Your task to perform on an android device: create a new album in the google photos Image 0: 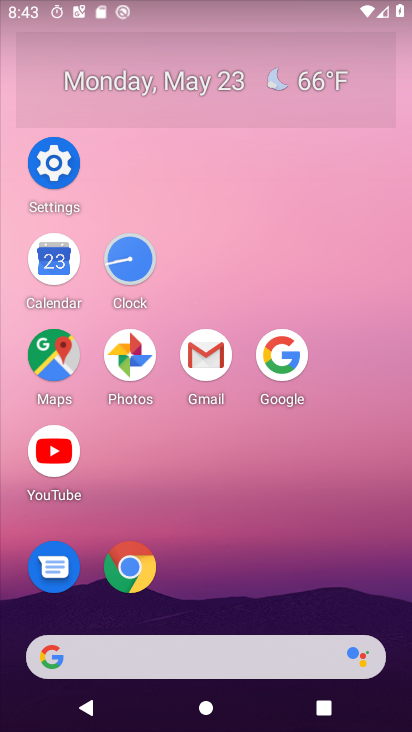
Step 0: click (131, 366)
Your task to perform on an android device: create a new album in the google photos Image 1: 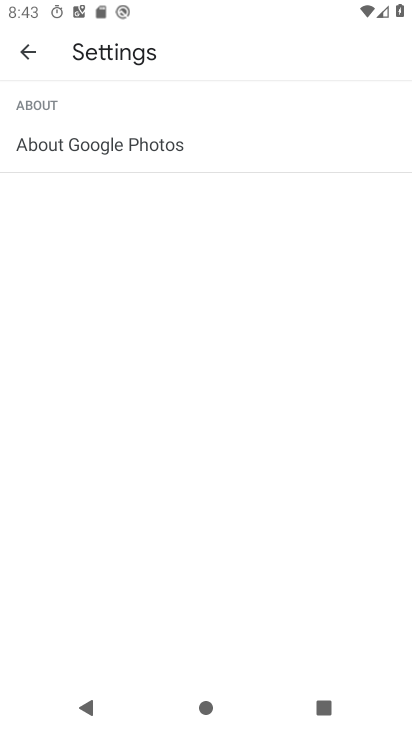
Step 1: click (29, 61)
Your task to perform on an android device: create a new album in the google photos Image 2: 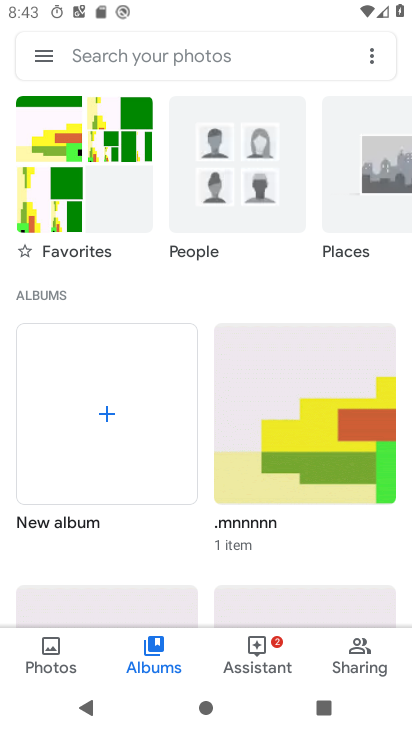
Step 2: click (110, 437)
Your task to perform on an android device: create a new album in the google photos Image 3: 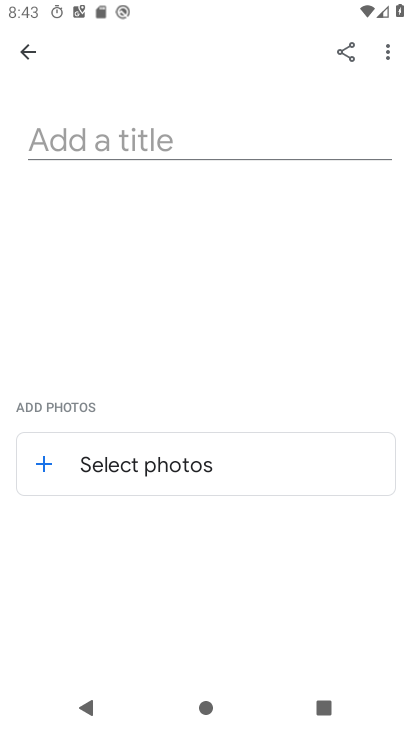
Step 3: click (219, 128)
Your task to perform on an android device: create a new album in the google photos Image 4: 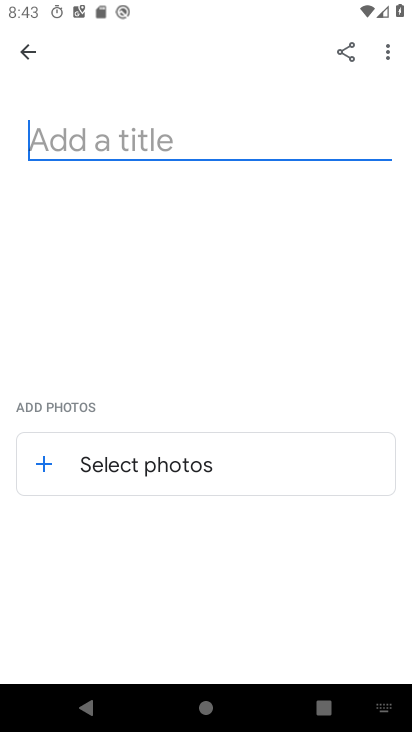
Step 4: type "pops"
Your task to perform on an android device: create a new album in the google photos Image 5: 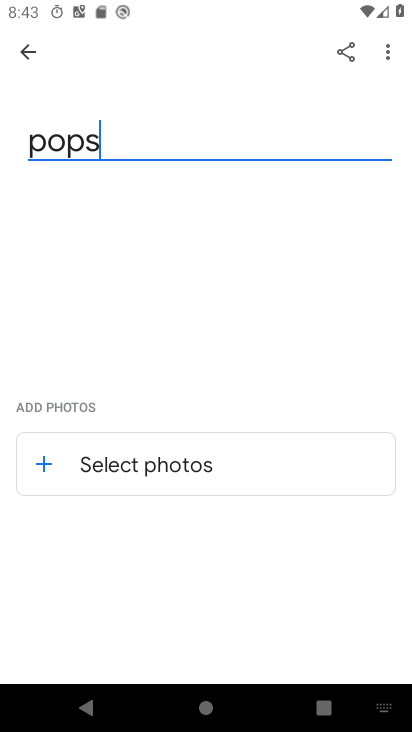
Step 5: click (88, 478)
Your task to perform on an android device: create a new album in the google photos Image 6: 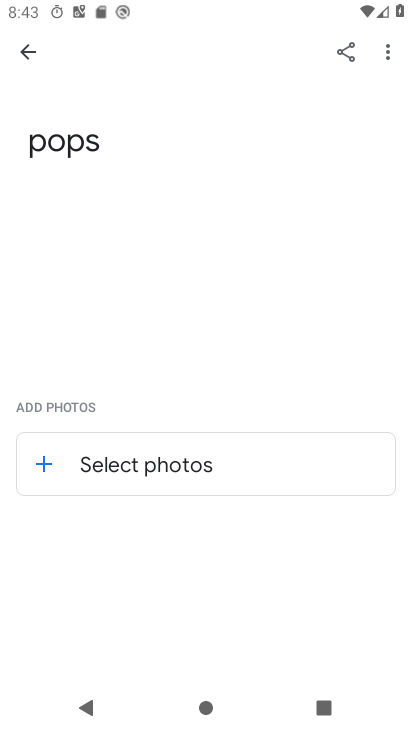
Step 6: click (136, 443)
Your task to perform on an android device: create a new album in the google photos Image 7: 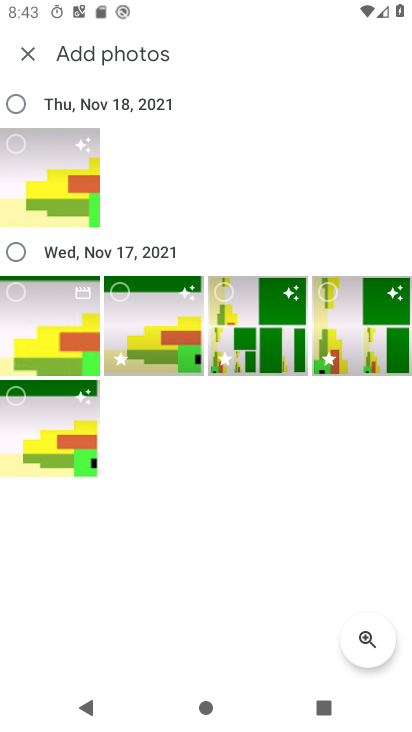
Step 7: click (17, 151)
Your task to perform on an android device: create a new album in the google photos Image 8: 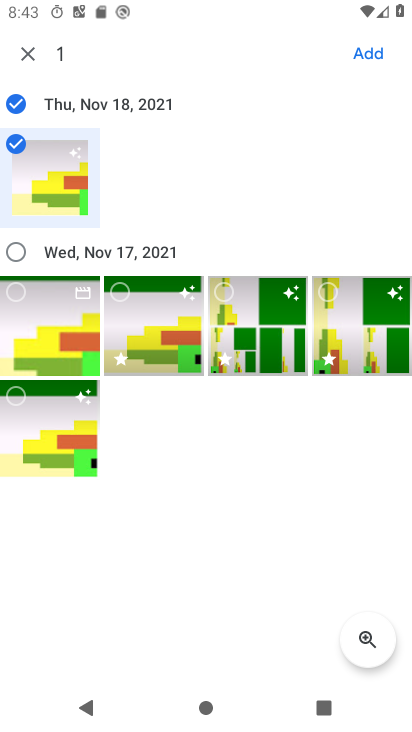
Step 8: click (28, 300)
Your task to perform on an android device: create a new album in the google photos Image 9: 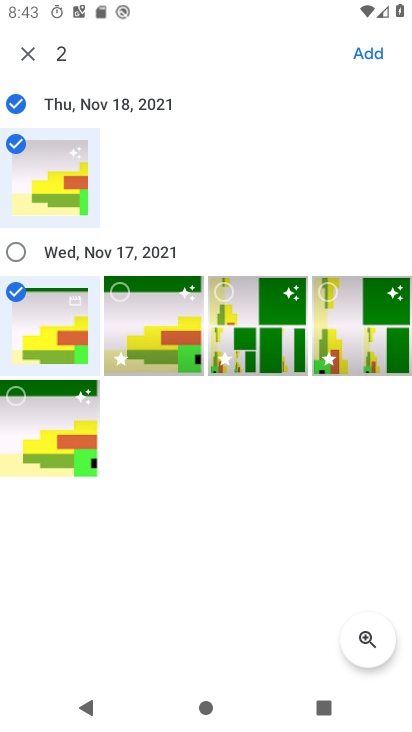
Step 9: click (365, 58)
Your task to perform on an android device: create a new album in the google photos Image 10: 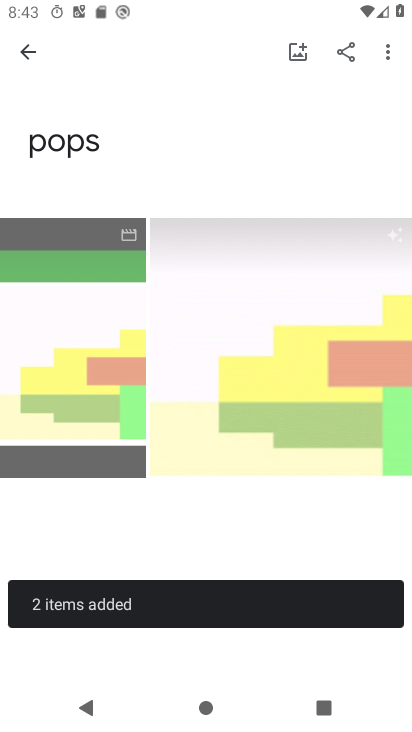
Step 10: task complete